Your task to perform on an android device: change the clock style Image 0: 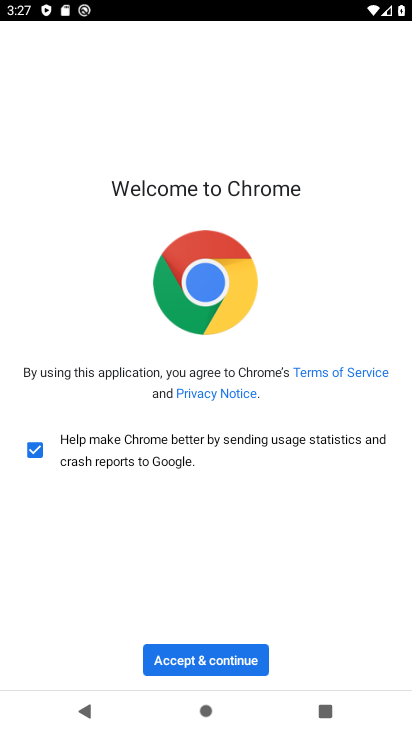
Step 0: press back button
Your task to perform on an android device: change the clock style Image 1: 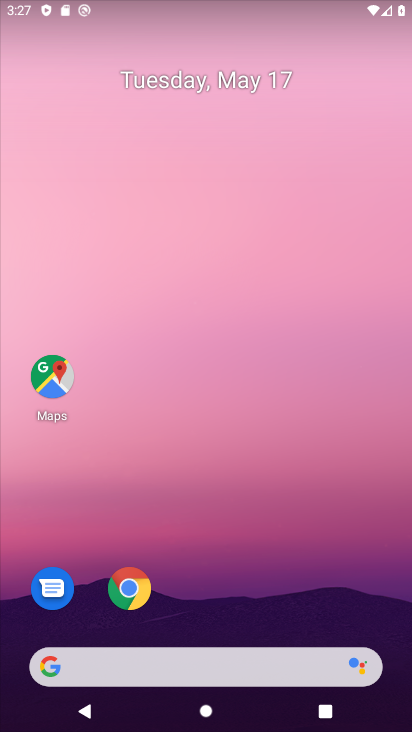
Step 1: drag from (264, 560) to (246, 205)
Your task to perform on an android device: change the clock style Image 2: 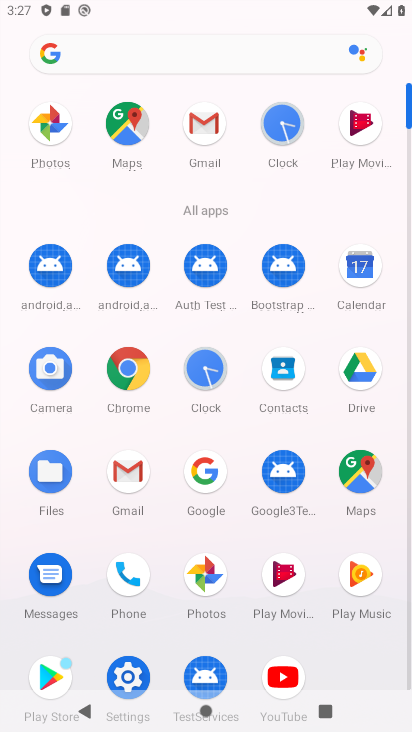
Step 2: click (283, 123)
Your task to perform on an android device: change the clock style Image 3: 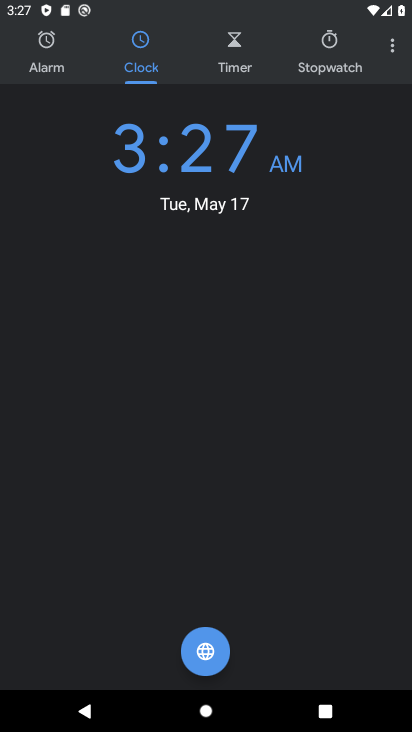
Step 3: click (393, 47)
Your task to perform on an android device: change the clock style Image 4: 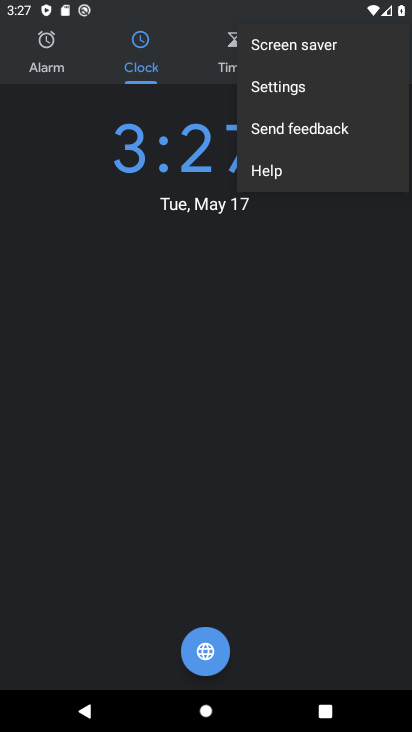
Step 4: click (301, 93)
Your task to perform on an android device: change the clock style Image 5: 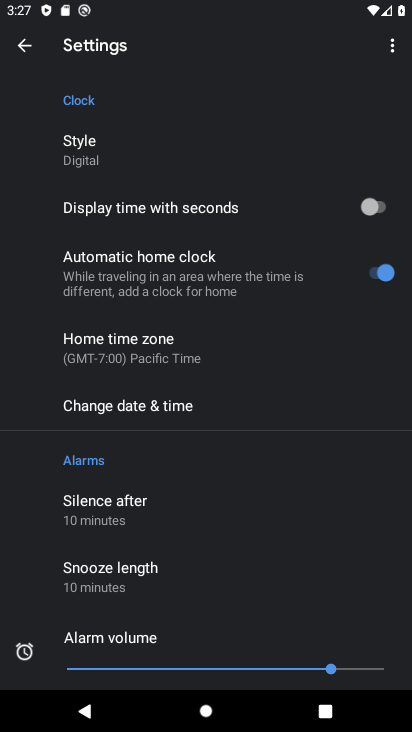
Step 5: click (86, 165)
Your task to perform on an android device: change the clock style Image 6: 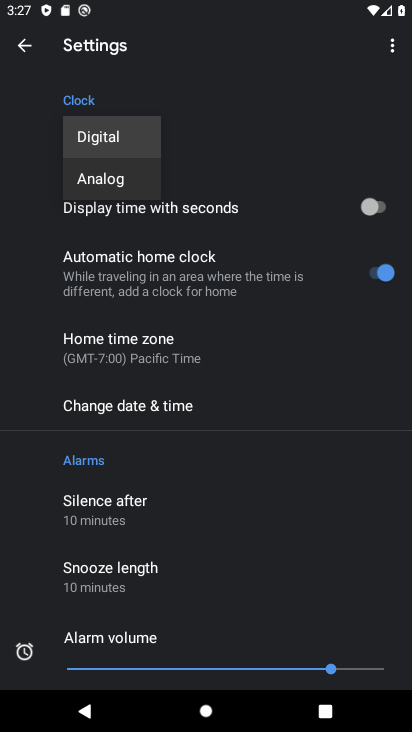
Step 6: click (101, 180)
Your task to perform on an android device: change the clock style Image 7: 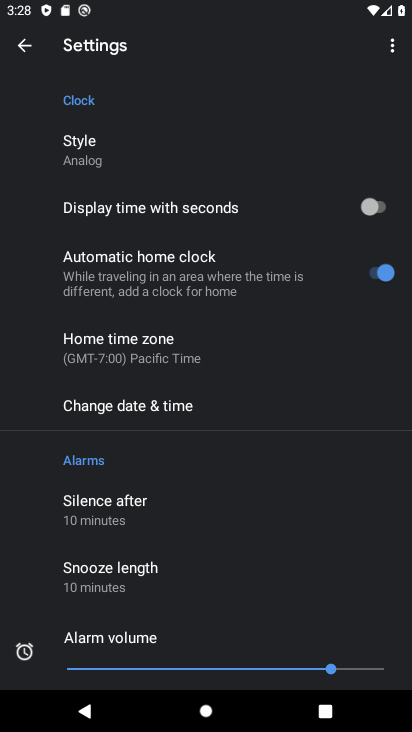
Step 7: task complete